Your task to perform on an android device: Open display settings Image 0: 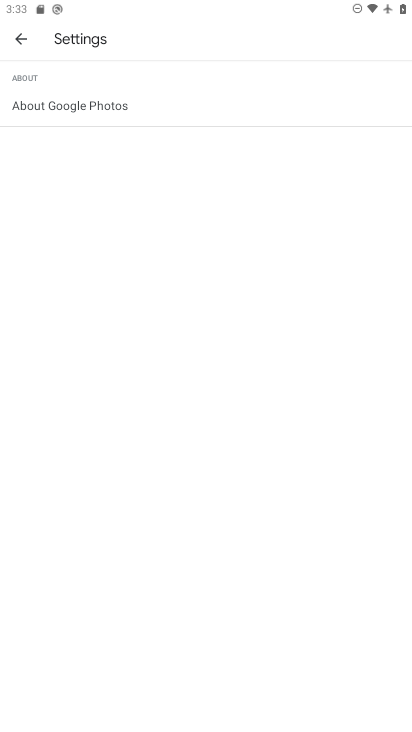
Step 0: press home button
Your task to perform on an android device: Open display settings Image 1: 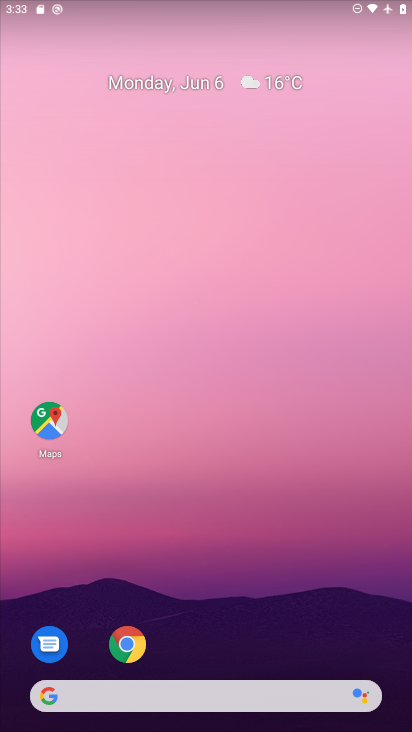
Step 1: drag from (274, 582) to (226, 15)
Your task to perform on an android device: Open display settings Image 2: 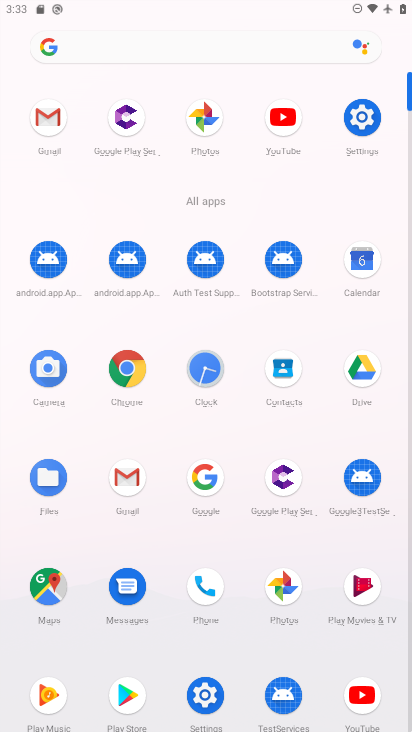
Step 2: click (363, 113)
Your task to perform on an android device: Open display settings Image 3: 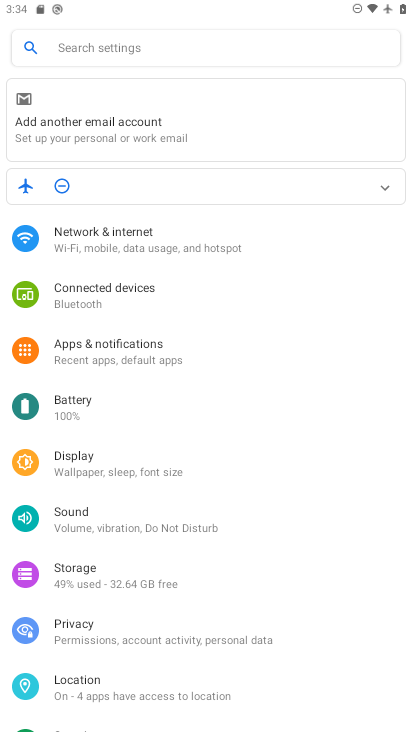
Step 3: click (95, 467)
Your task to perform on an android device: Open display settings Image 4: 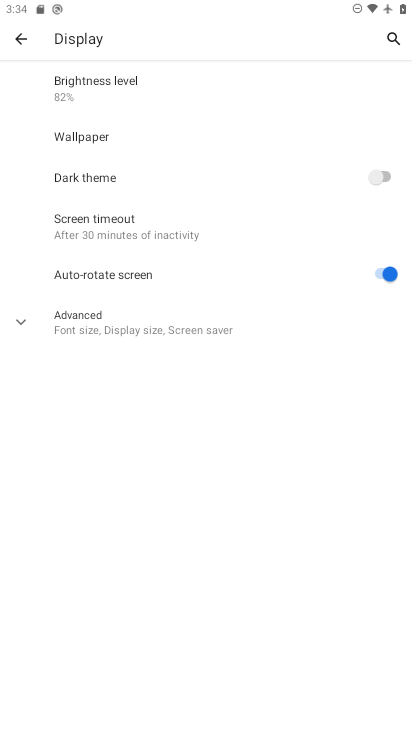
Step 4: task complete